Your task to perform on an android device: turn off wifi Image 0: 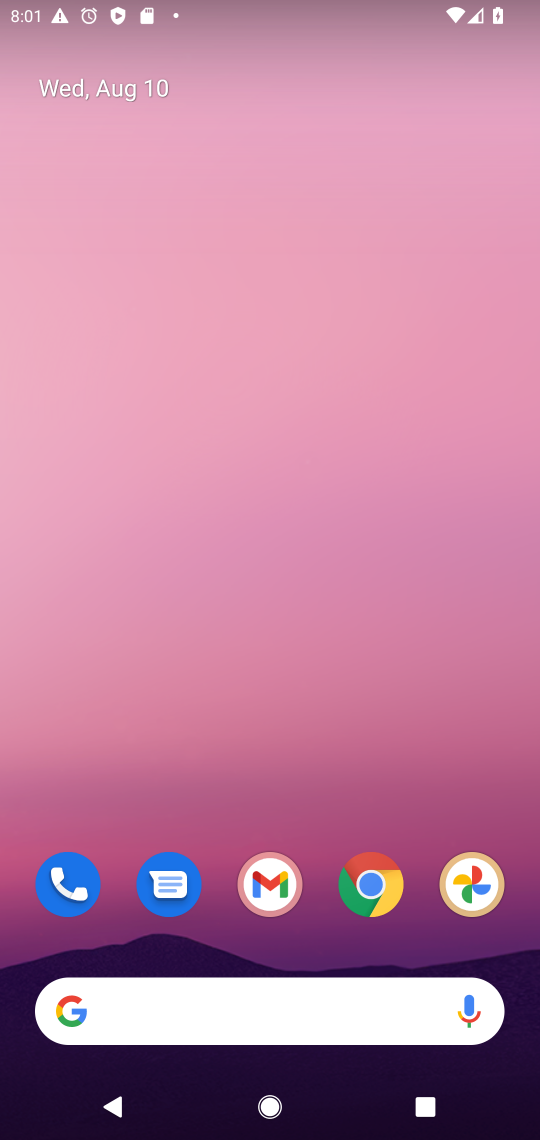
Step 0: drag from (59, 1095) to (294, 414)
Your task to perform on an android device: turn off wifi Image 1: 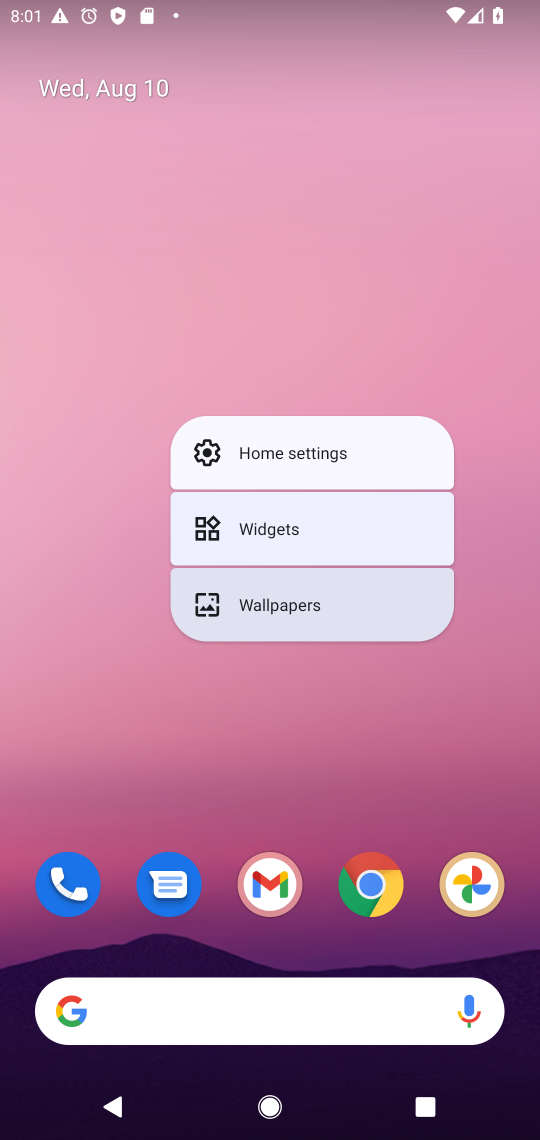
Step 1: drag from (49, 1089) to (42, 361)
Your task to perform on an android device: turn off wifi Image 2: 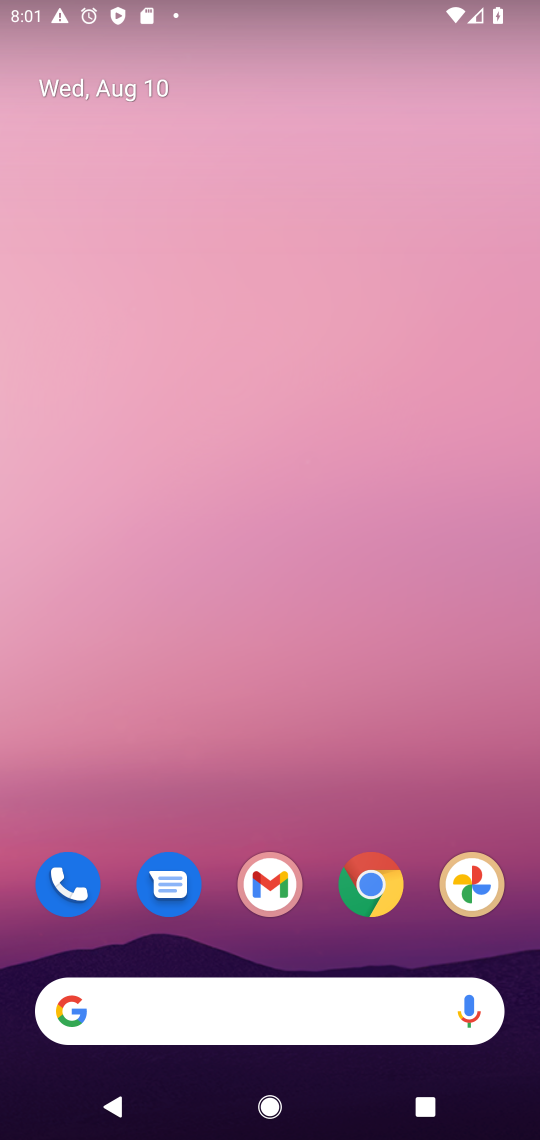
Step 2: drag from (35, 1054) to (336, 175)
Your task to perform on an android device: turn off wifi Image 3: 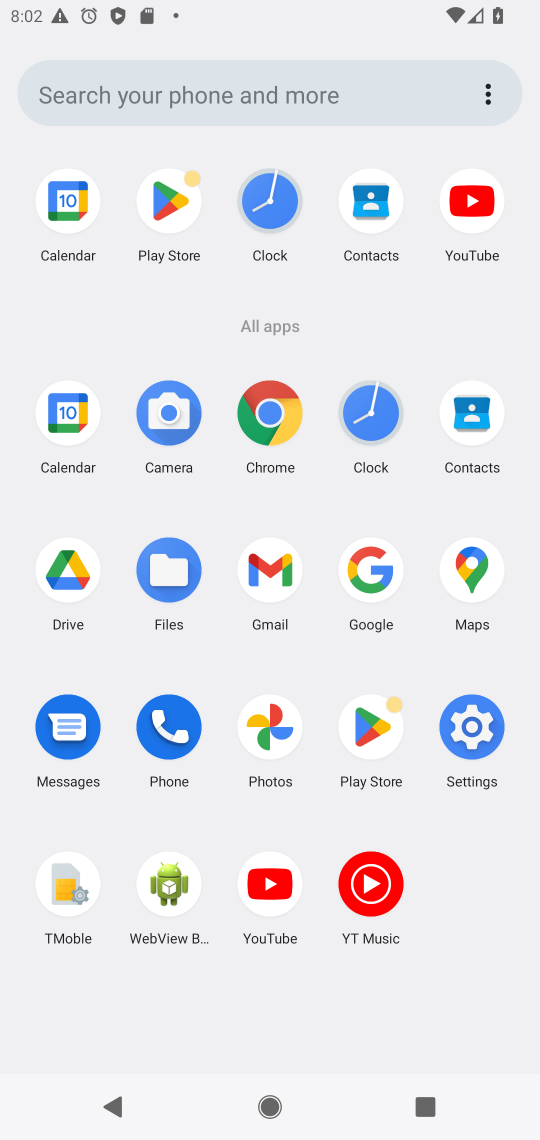
Step 3: click (498, 749)
Your task to perform on an android device: turn off wifi Image 4: 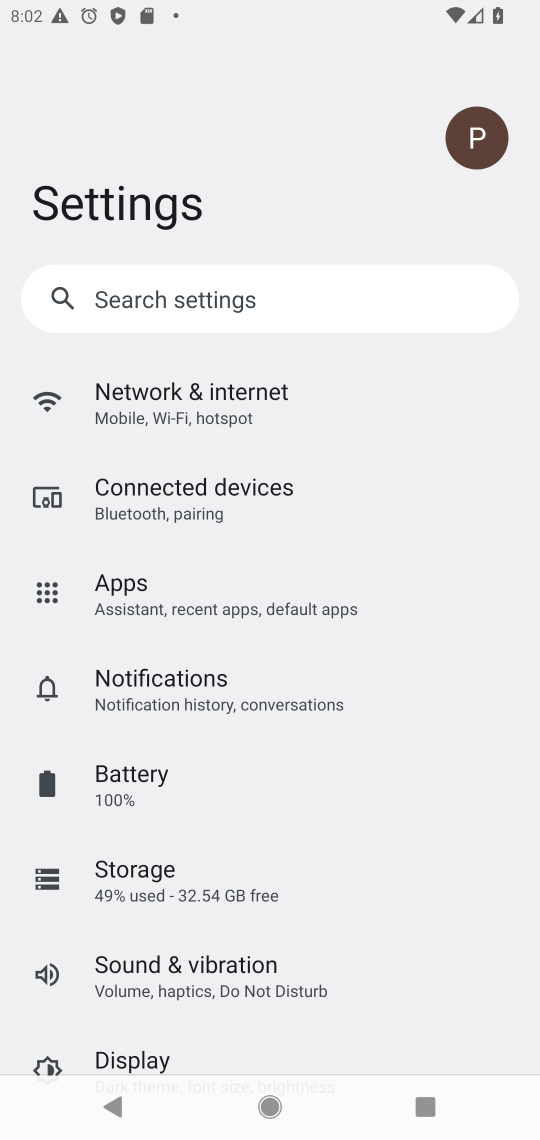
Step 4: click (158, 437)
Your task to perform on an android device: turn off wifi Image 5: 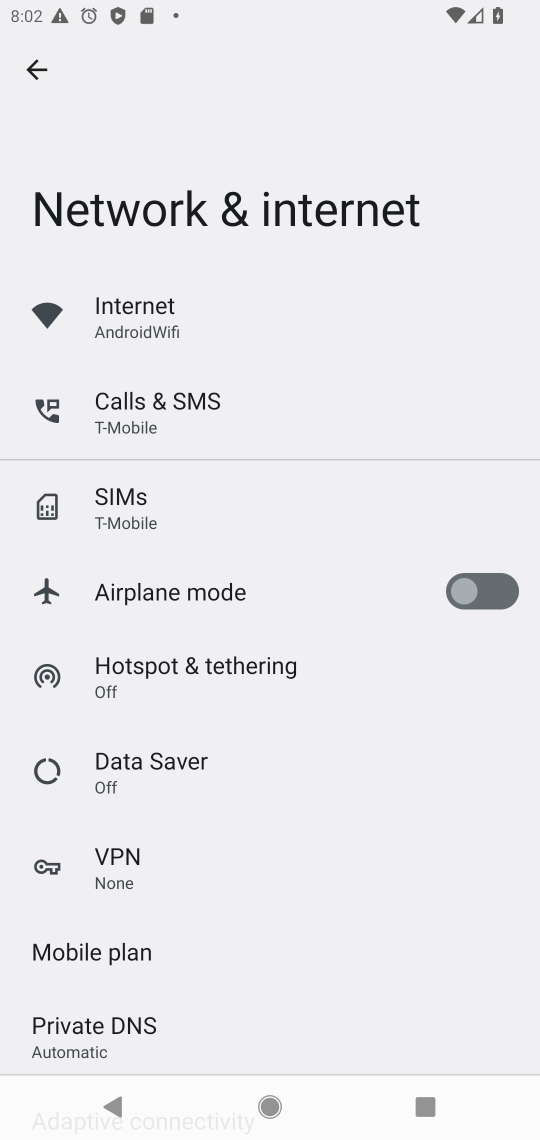
Step 5: click (148, 311)
Your task to perform on an android device: turn off wifi Image 6: 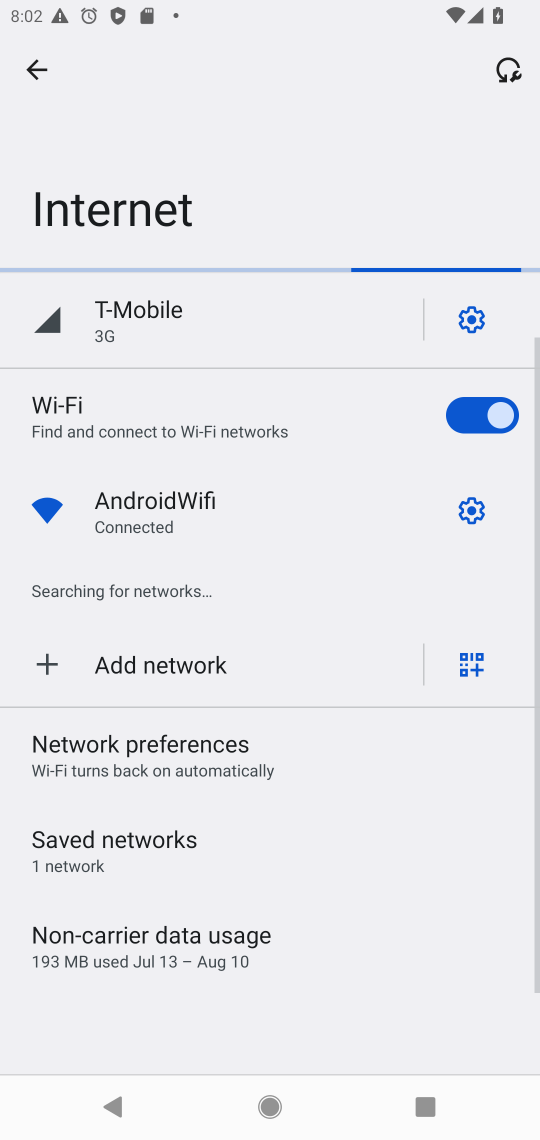
Step 6: task complete